Your task to perform on an android device: Open Amazon Image 0: 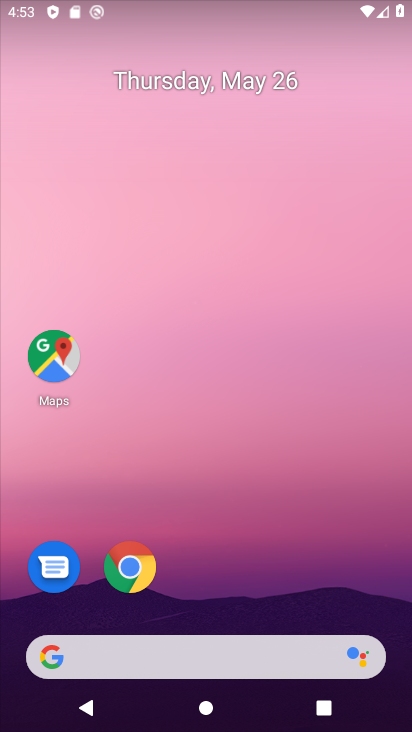
Step 0: click (182, 652)
Your task to perform on an android device: Open Amazon Image 1: 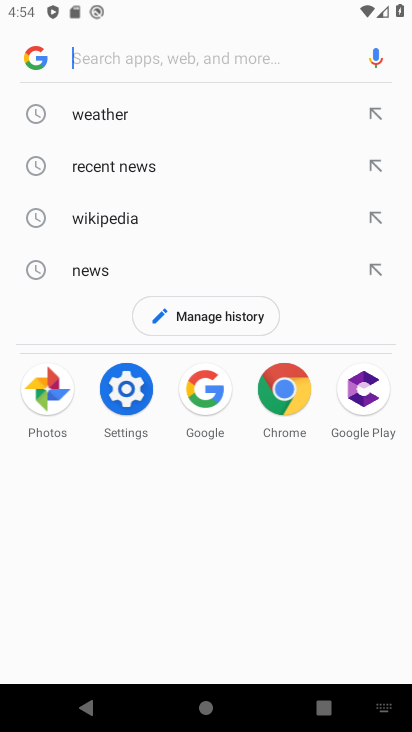
Step 1: type "Amazon"
Your task to perform on an android device: Open Amazon Image 2: 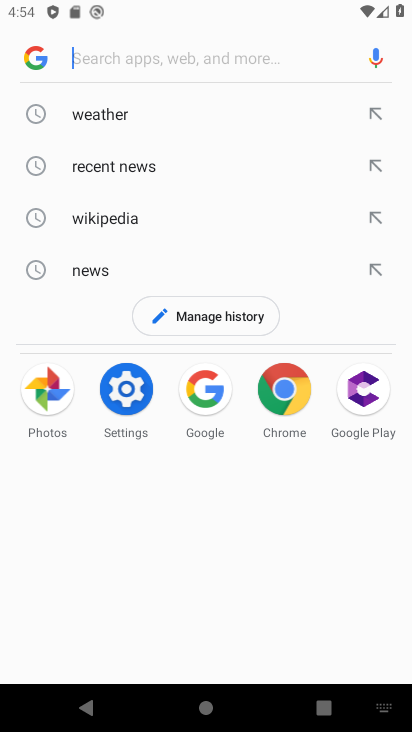
Step 2: click (119, 61)
Your task to perform on an android device: Open Amazon Image 3: 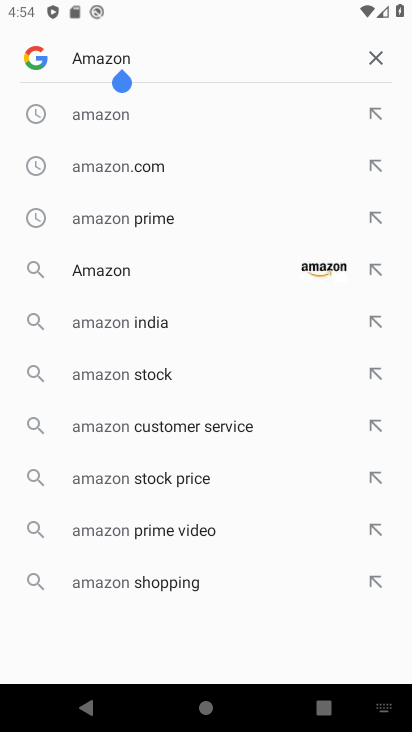
Step 3: click (159, 271)
Your task to perform on an android device: Open Amazon Image 4: 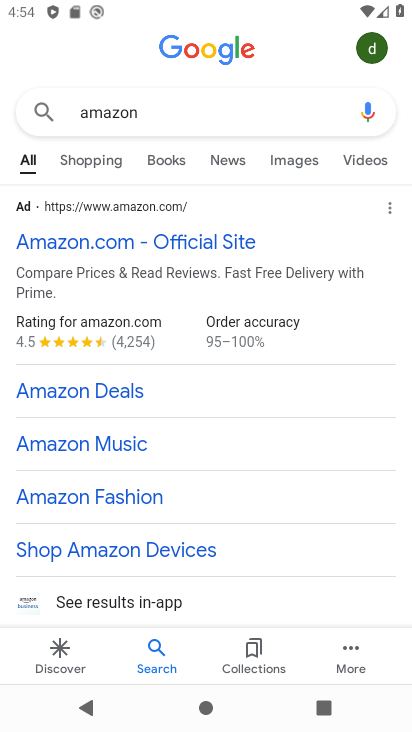
Step 4: drag from (301, 605) to (289, 140)
Your task to perform on an android device: Open Amazon Image 5: 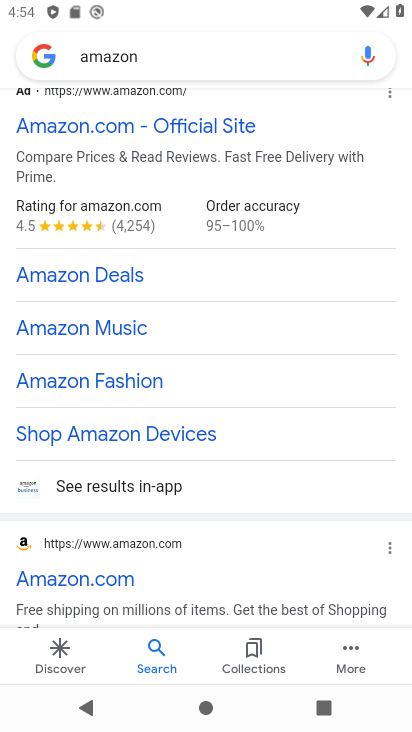
Step 5: click (73, 582)
Your task to perform on an android device: Open Amazon Image 6: 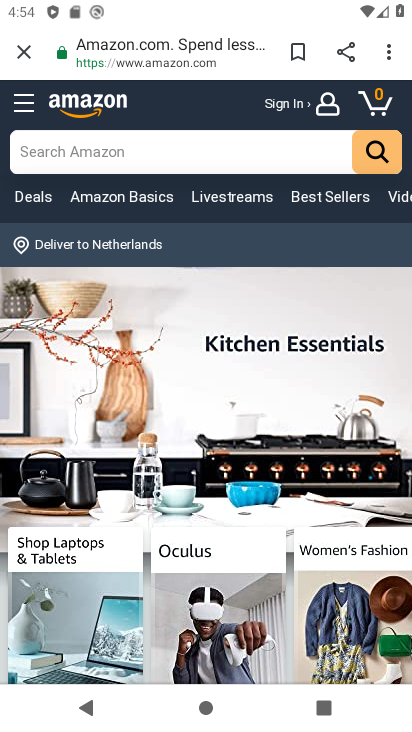
Step 6: task complete